Your task to perform on an android device: clear all cookies in the chrome app Image 0: 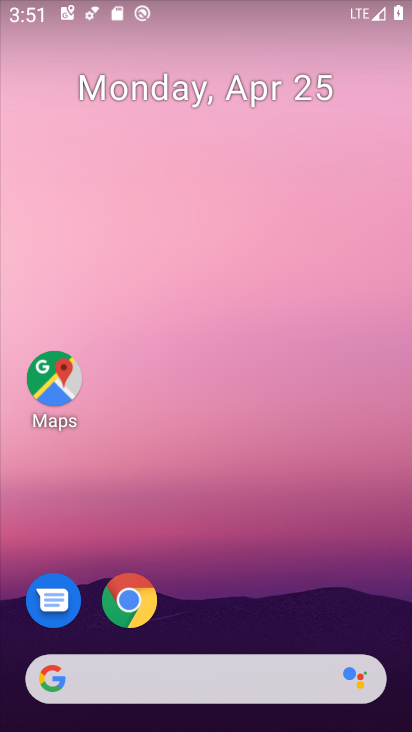
Step 0: drag from (305, 512) to (299, 17)
Your task to perform on an android device: clear all cookies in the chrome app Image 1: 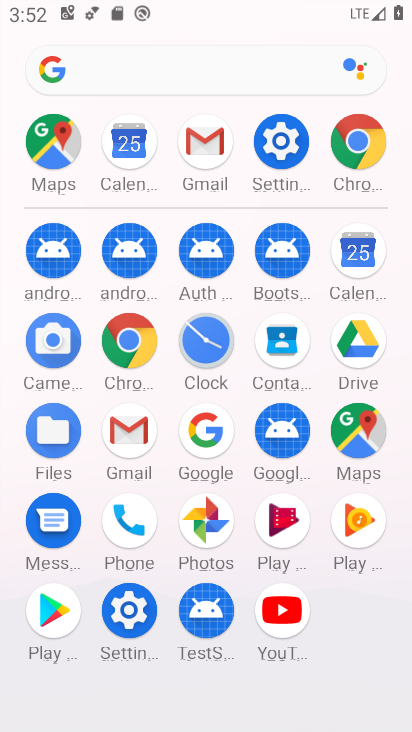
Step 1: drag from (4, 565) to (13, 228)
Your task to perform on an android device: clear all cookies in the chrome app Image 2: 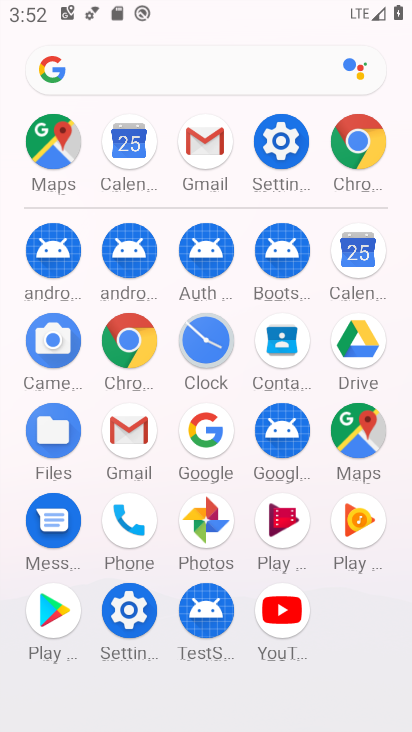
Step 2: click (127, 339)
Your task to perform on an android device: clear all cookies in the chrome app Image 3: 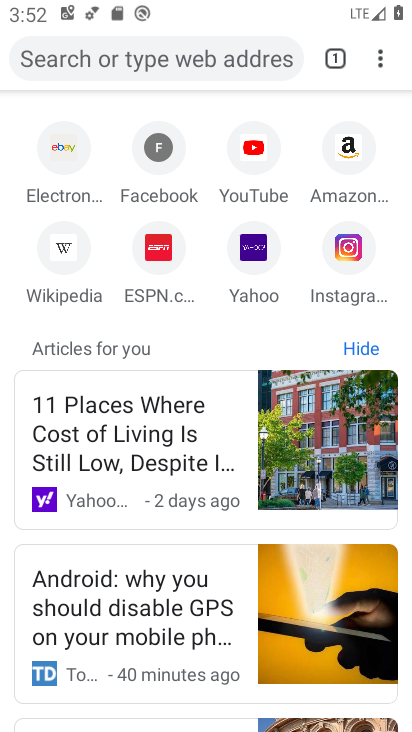
Step 3: drag from (381, 59) to (201, 538)
Your task to perform on an android device: clear all cookies in the chrome app Image 4: 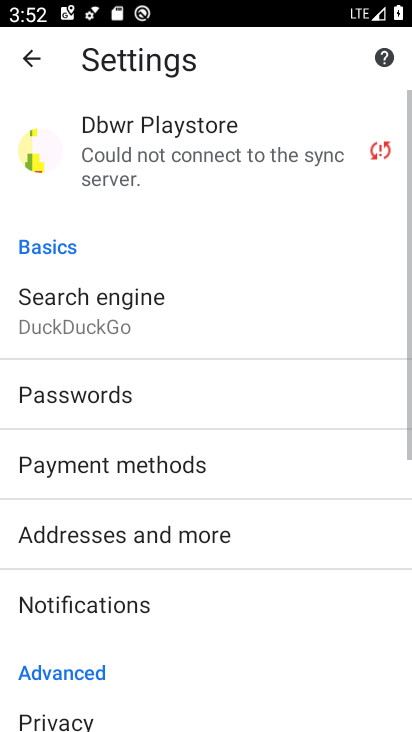
Step 4: drag from (236, 641) to (243, 209)
Your task to perform on an android device: clear all cookies in the chrome app Image 5: 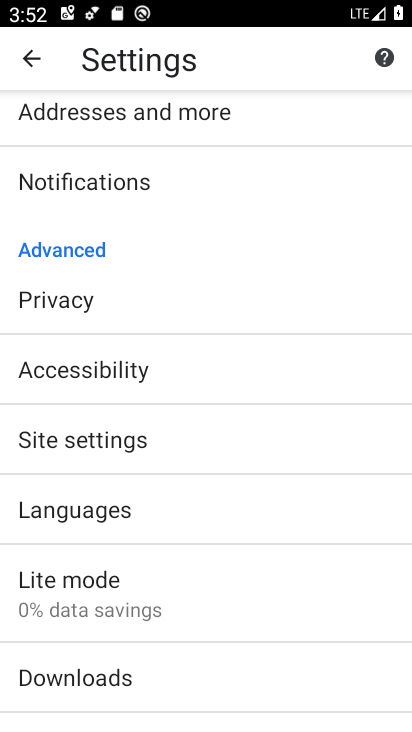
Step 5: drag from (177, 515) to (202, 222)
Your task to perform on an android device: clear all cookies in the chrome app Image 6: 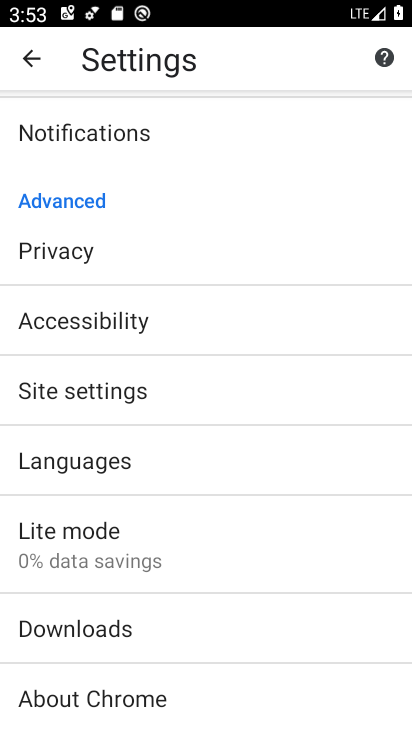
Step 6: drag from (218, 183) to (239, 675)
Your task to perform on an android device: clear all cookies in the chrome app Image 7: 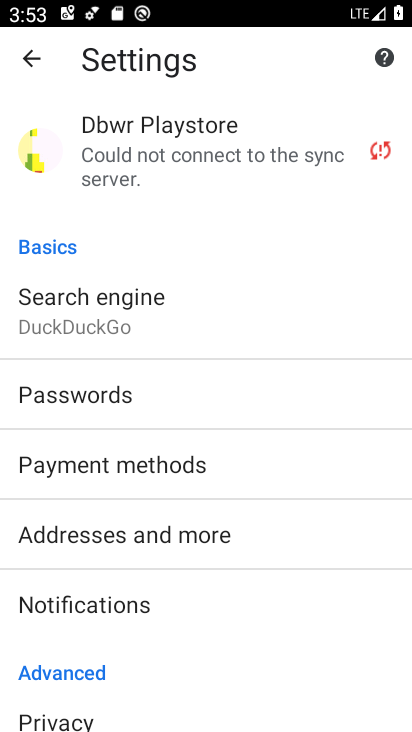
Step 7: drag from (253, 303) to (255, 630)
Your task to perform on an android device: clear all cookies in the chrome app Image 8: 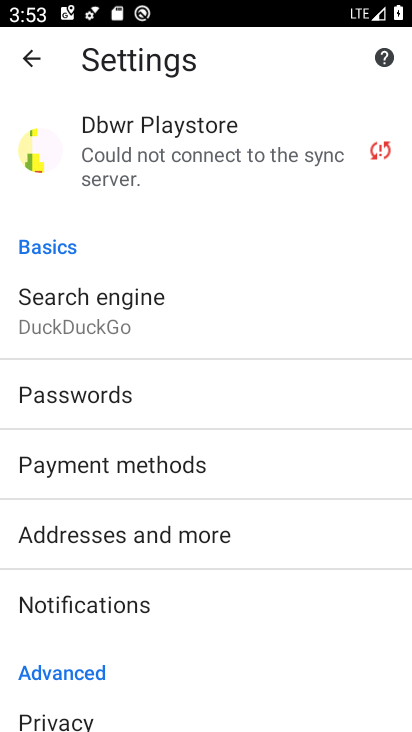
Step 8: drag from (226, 601) to (267, 351)
Your task to perform on an android device: clear all cookies in the chrome app Image 9: 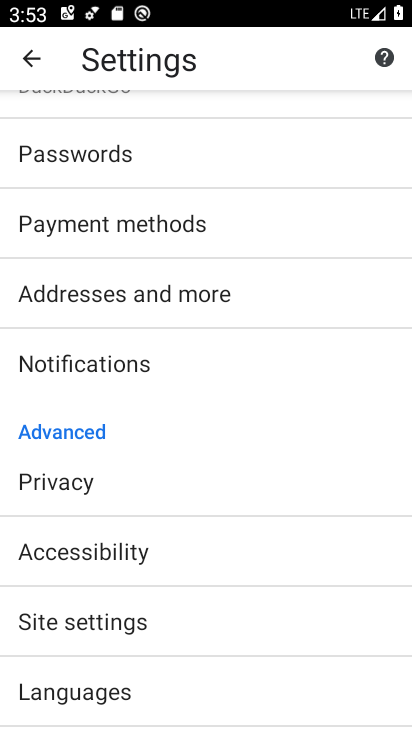
Step 9: click (161, 623)
Your task to perform on an android device: clear all cookies in the chrome app Image 10: 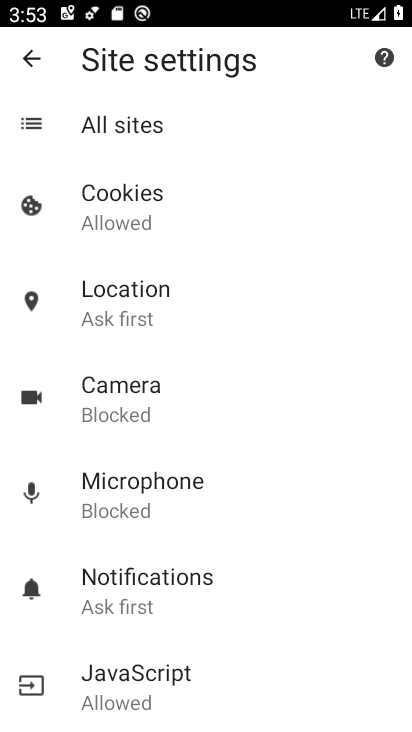
Step 10: click (199, 204)
Your task to perform on an android device: clear all cookies in the chrome app Image 11: 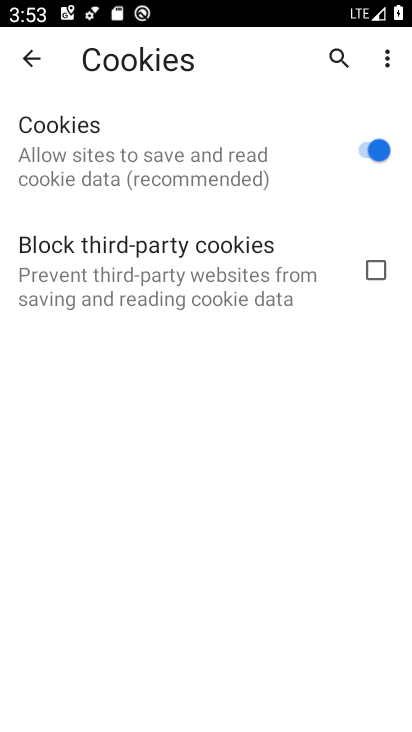
Step 11: click (27, 68)
Your task to perform on an android device: clear all cookies in the chrome app Image 12: 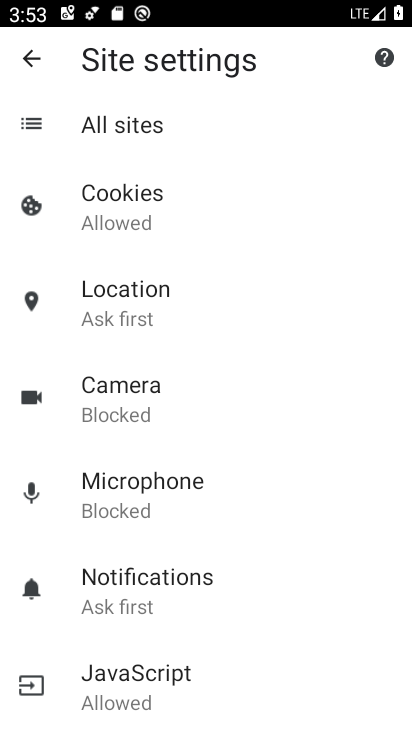
Step 12: click (29, 65)
Your task to perform on an android device: clear all cookies in the chrome app Image 13: 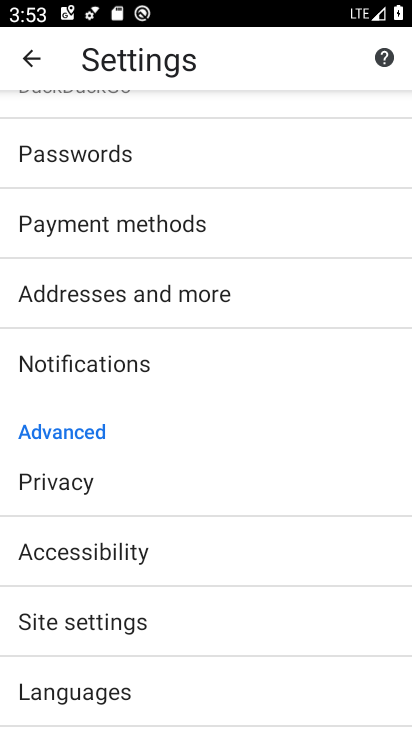
Step 13: drag from (271, 483) to (296, 143)
Your task to perform on an android device: clear all cookies in the chrome app Image 14: 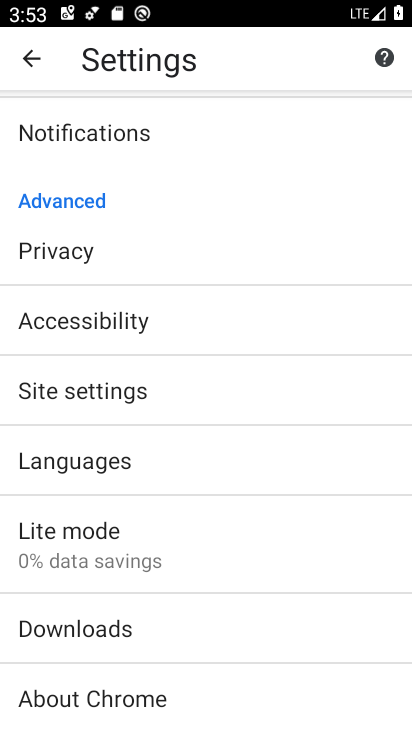
Step 14: drag from (276, 562) to (310, 158)
Your task to perform on an android device: clear all cookies in the chrome app Image 15: 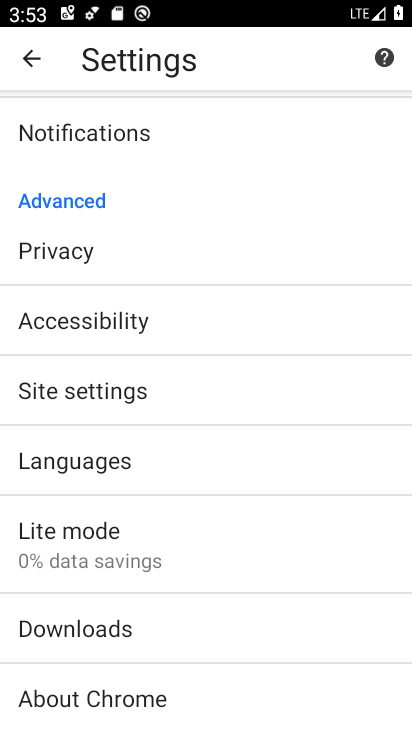
Step 15: drag from (274, 556) to (280, 146)
Your task to perform on an android device: clear all cookies in the chrome app Image 16: 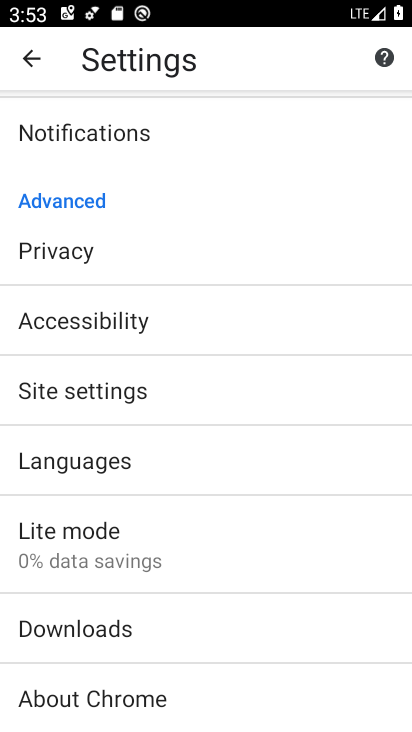
Step 16: click (123, 247)
Your task to perform on an android device: clear all cookies in the chrome app Image 17: 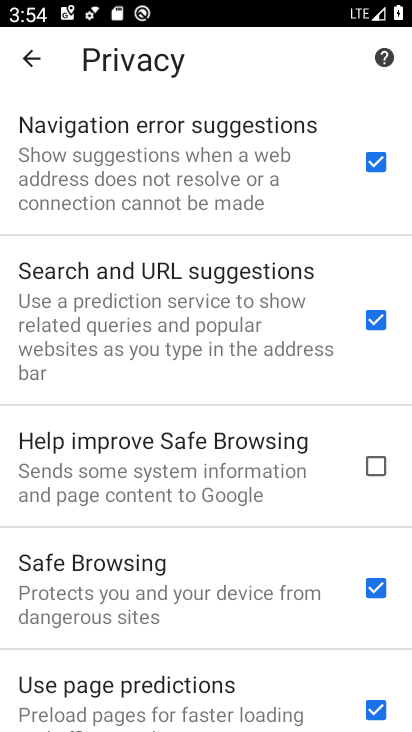
Step 17: drag from (219, 628) to (228, 78)
Your task to perform on an android device: clear all cookies in the chrome app Image 18: 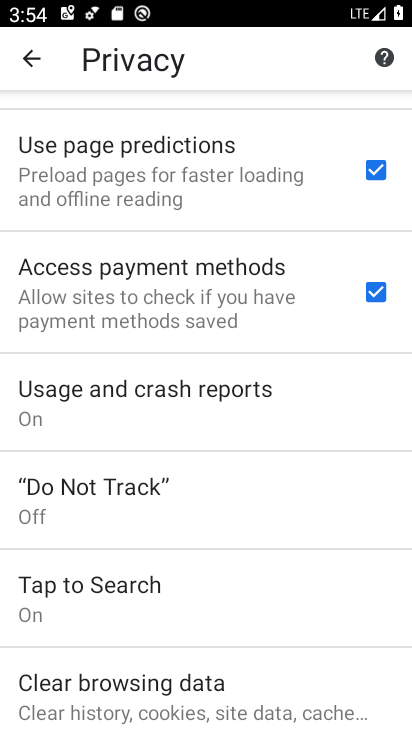
Step 18: drag from (194, 615) to (216, 169)
Your task to perform on an android device: clear all cookies in the chrome app Image 19: 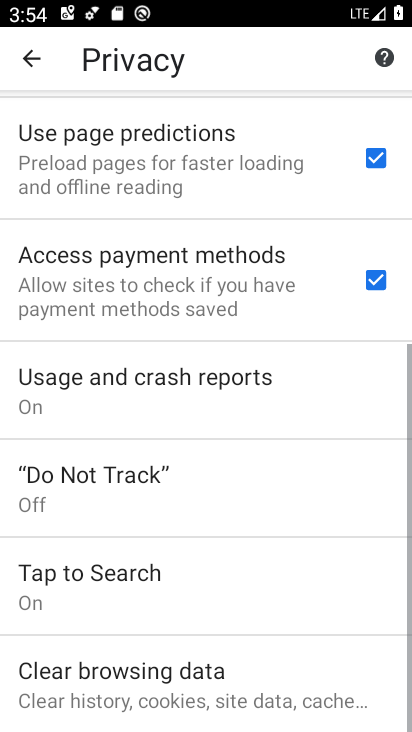
Step 19: click (149, 702)
Your task to perform on an android device: clear all cookies in the chrome app Image 20: 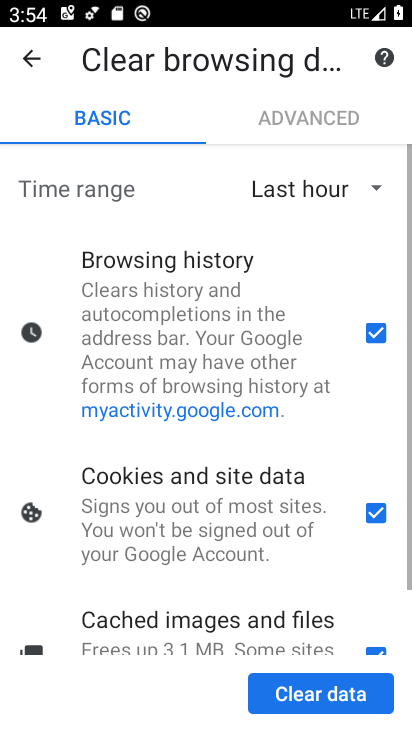
Step 20: drag from (198, 583) to (213, 245)
Your task to perform on an android device: clear all cookies in the chrome app Image 21: 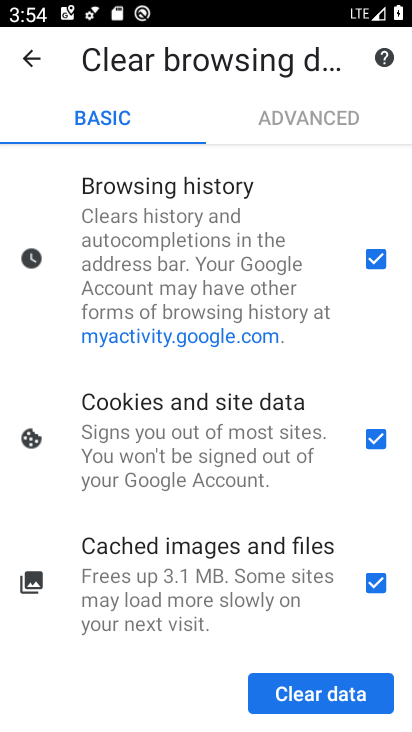
Step 21: click (369, 260)
Your task to perform on an android device: clear all cookies in the chrome app Image 22: 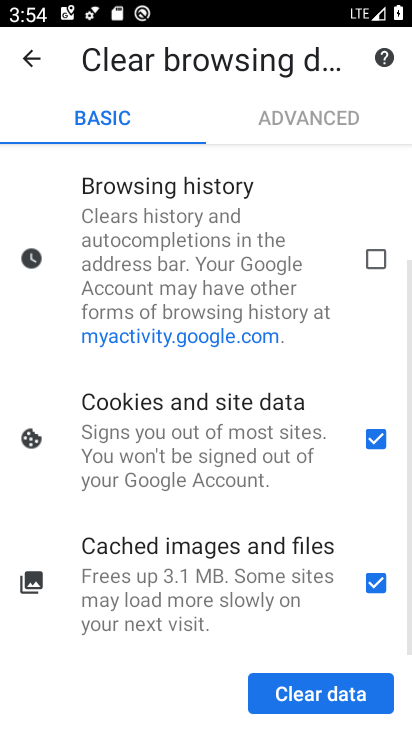
Step 22: click (374, 586)
Your task to perform on an android device: clear all cookies in the chrome app Image 23: 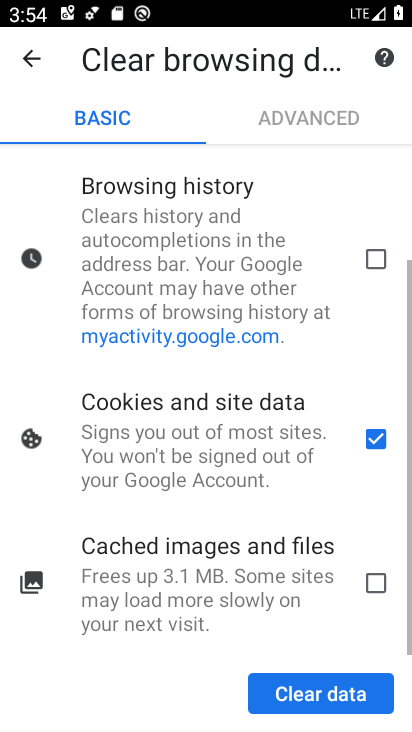
Step 23: click (344, 693)
Your task to perform on an android device: clear all cookies in the chrome app Image 24: 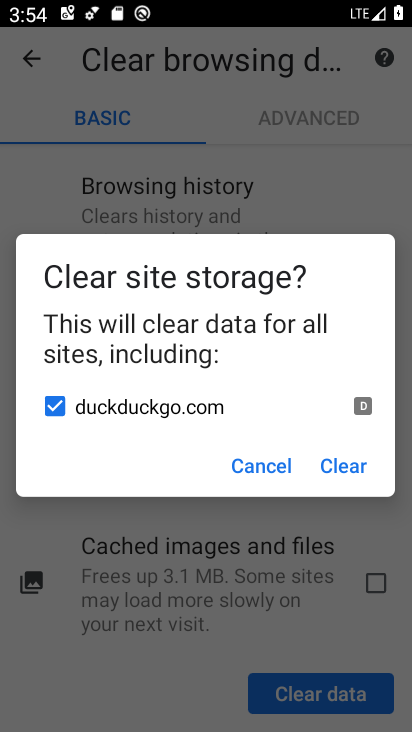
Step 24: click (339, 467)
Your task to perform on an android device: clear all cookies in the chrome app Image 25: 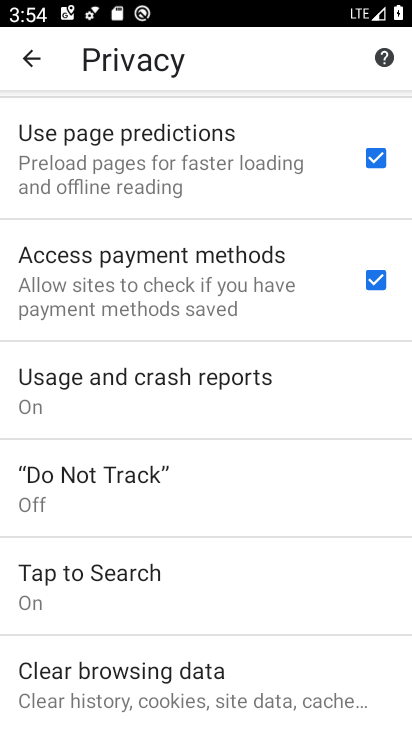
Step 25: task complete